Your task to perform on an android device: toggle wifi Image 0: 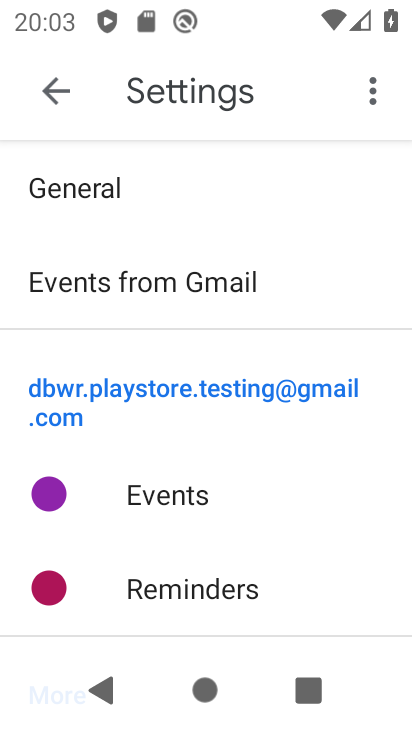
Step 0: press home button
Your task to perform on an android device: toggle wifi Image 1: 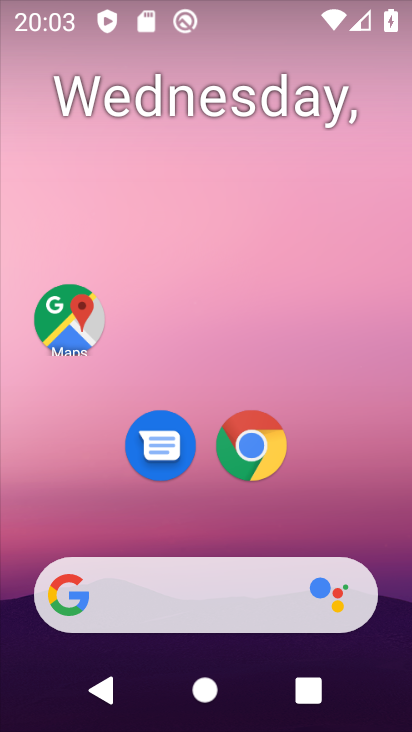
Step 1: drag from (354, 456) to (349, 186)
Your task to perform on an android device: toggle wifi Image 2: 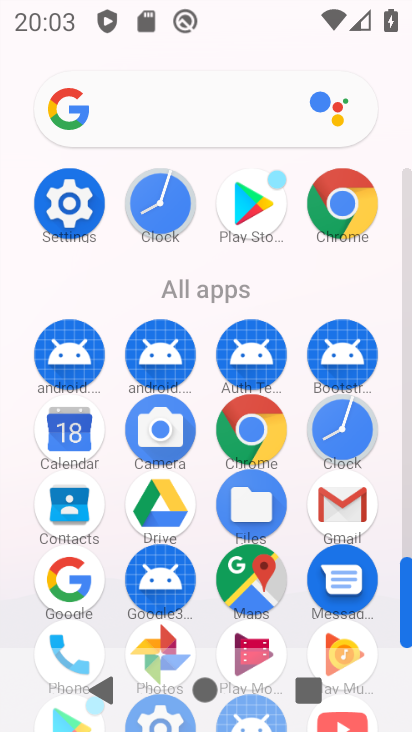
Step 2: click (78, 208)
Your task to perform on an android device: toggle wifi Image 3: 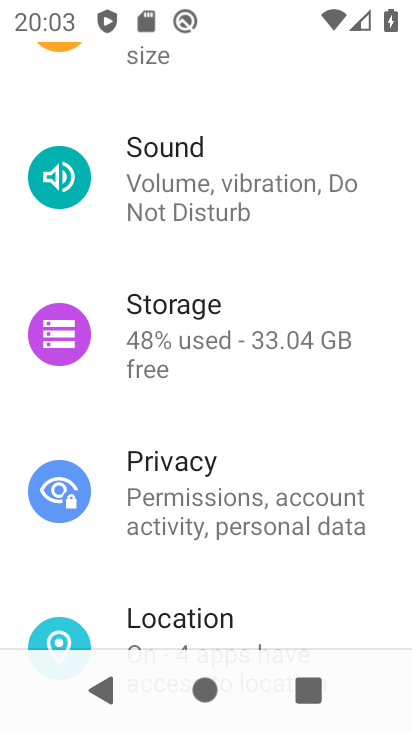
Step 3: drag from (268, 177) to (210, 543)
Your task to perform on an android device: toggle wifi Image 4: 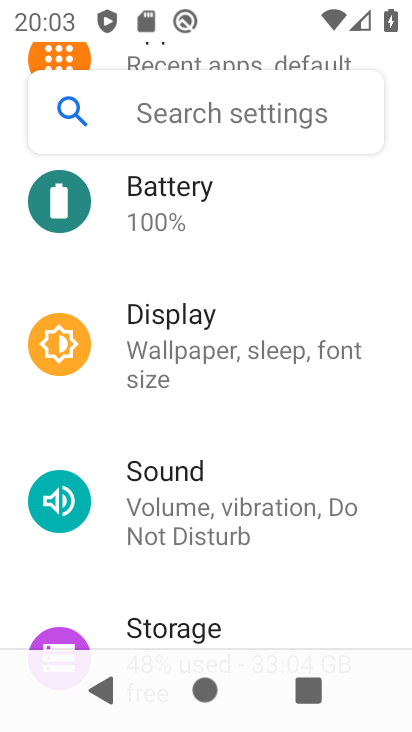
Step 4: drag from (192, 252) to (179, 573)
Your task to perform on an android device: toggle wifi Image 5: 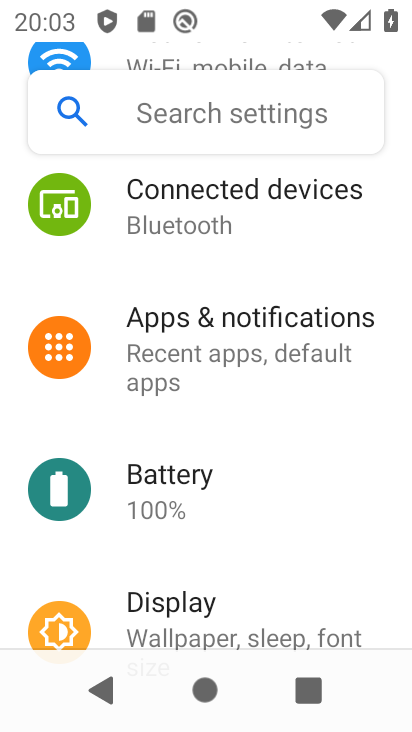
Step 5: drag from (231, 187) to (233, 512)
Your task to perform on an android device: toggle wifi Image 6: 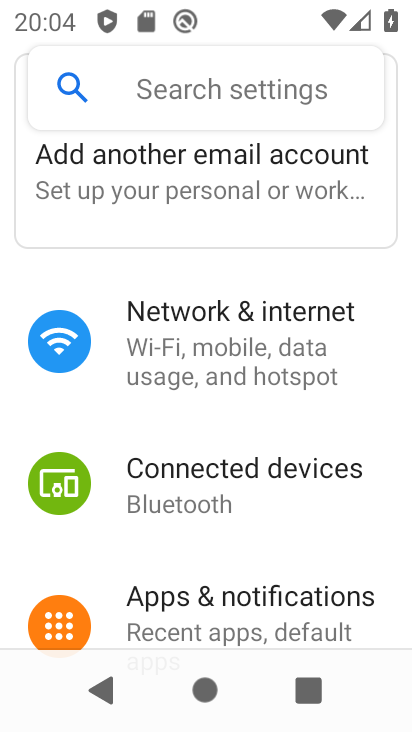
Step 6: click (196, 305)
Your task to perform on an android device: toggle wifi Image 7: 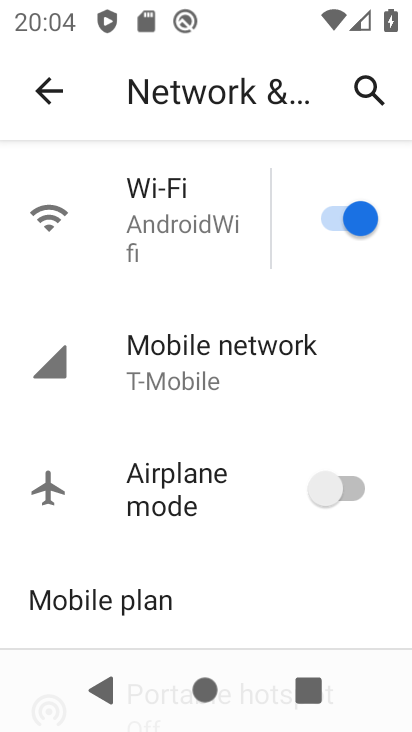
Step 7: click (144, 216)
Your task to perform on an android device: toggle wifi Image 8: 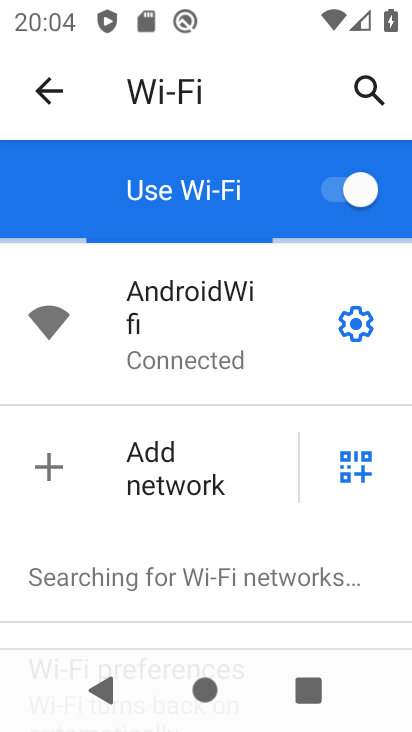
Step 8: task complete